Your task to perform on an android device: What's the weather today? Image 0: 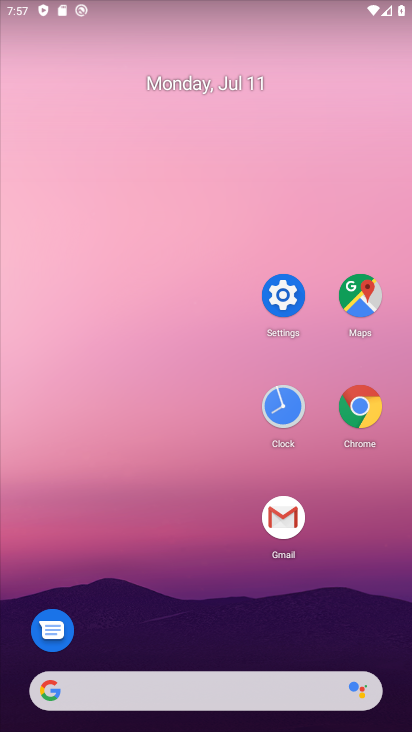
Step 0: click (360, 412)
Your task to perform on an android device: What's the weather today? Image 1: 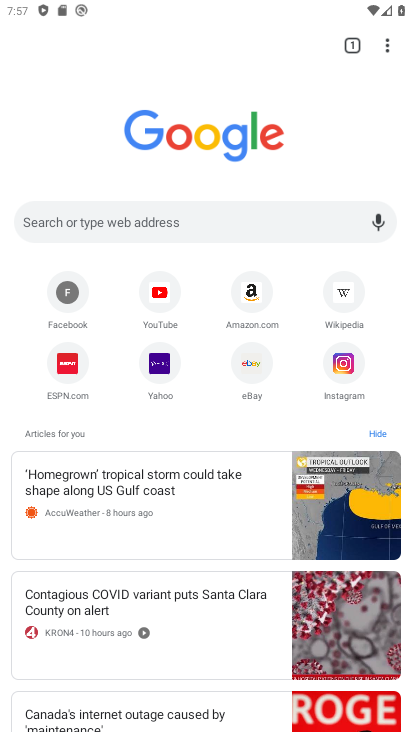
Step 1: click (247, 226)
Your task to perform on an android device: What's the weather today? Image 2: 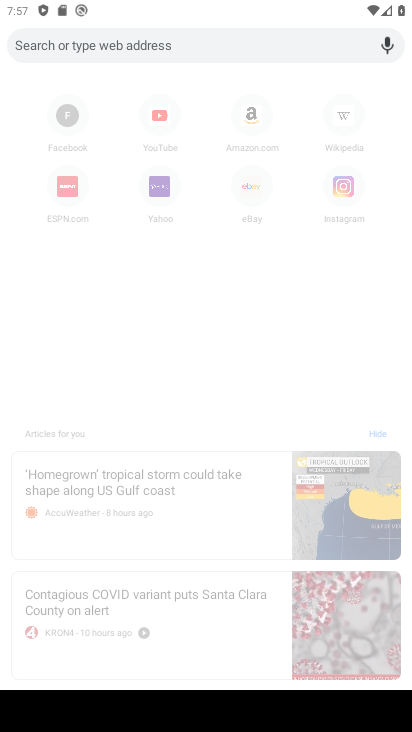
Step 2: type "weather"
Your task to perform on an android device: What's the weather today? Image 3: 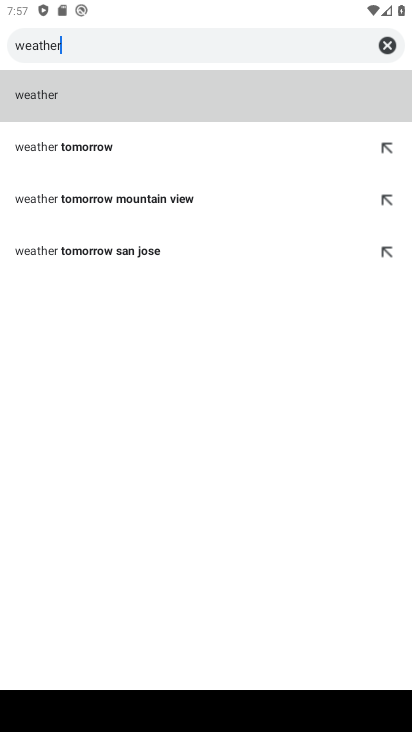
Step 3: click (254, 101)
Your task to perform on an android device: What's the weather today? Image 4: 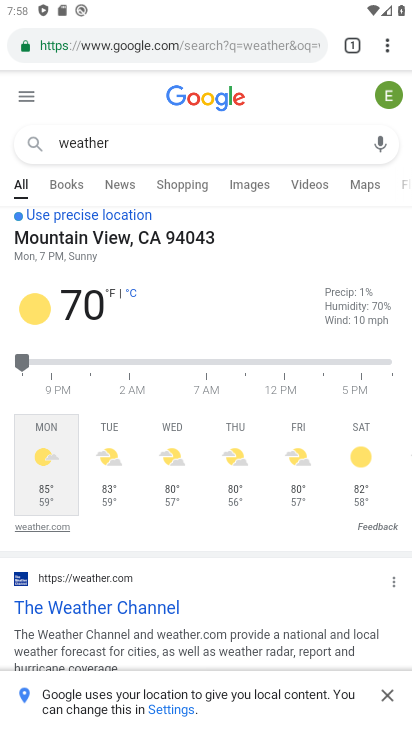
Step 4: task complete